Your task to perform on an android device: Go to Wikipedia Image 0: 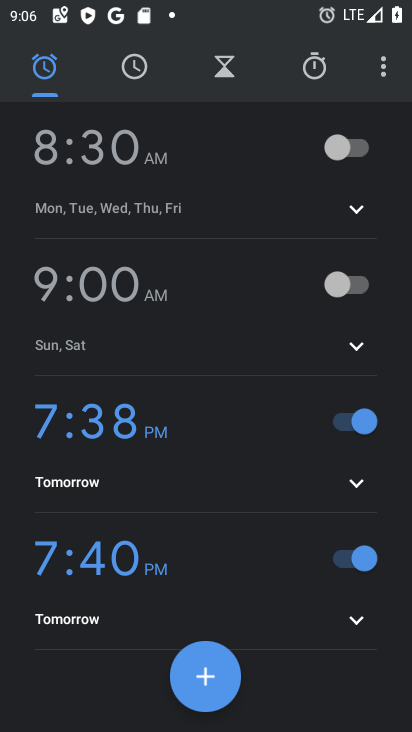
Step 0: press home button
Your task to perform on an android device: Go to Wikipedia Image 1: 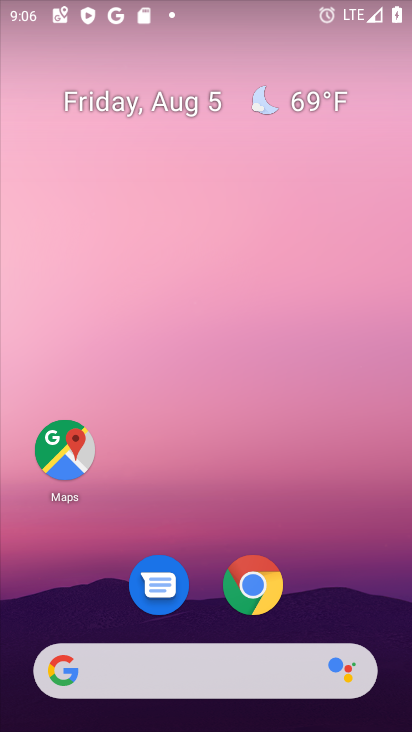
Step 1: click (251, 583)
Your task to perform on an android device: Go to Wikipedia Image 2: 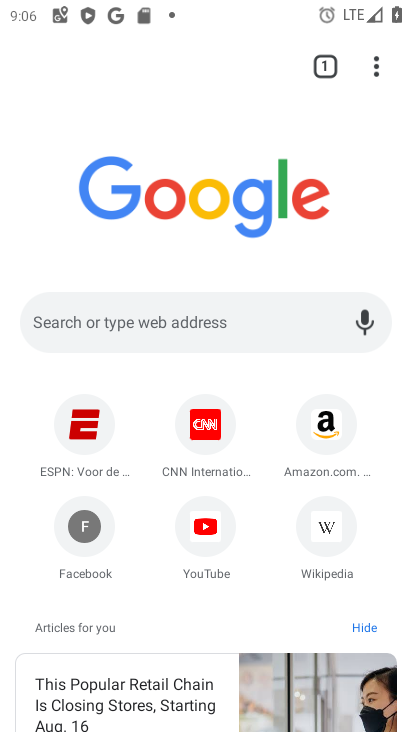
Step 2: click (331, 528)
Your task to perform on an android device: Go to Wikipedia Image 3: 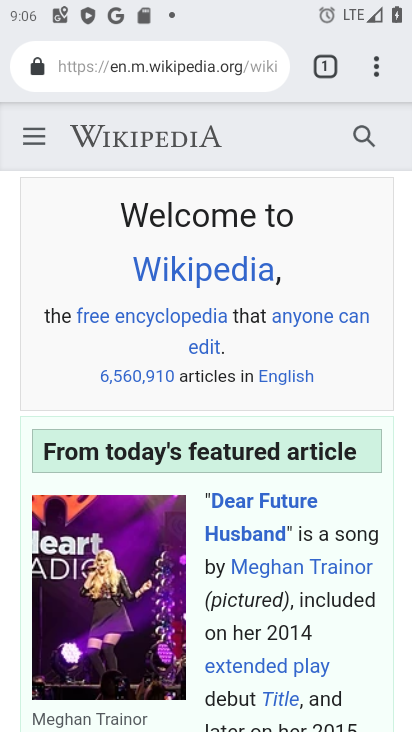
Step 3: task complete